Your task to perform on an android device: Open the Play Movies app and select the watchlist tab. Image 0: 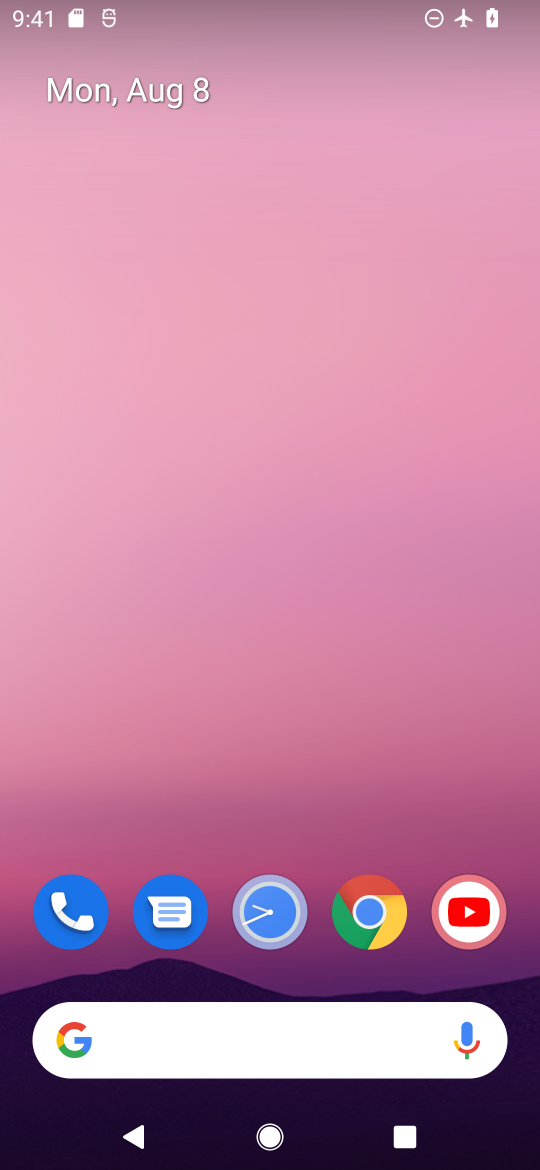
Step 0: drag from (535, 928) to (4, 221)
Your task to perform on an android device: Open the Play Movies app and select the watchlist tab. Image 1: 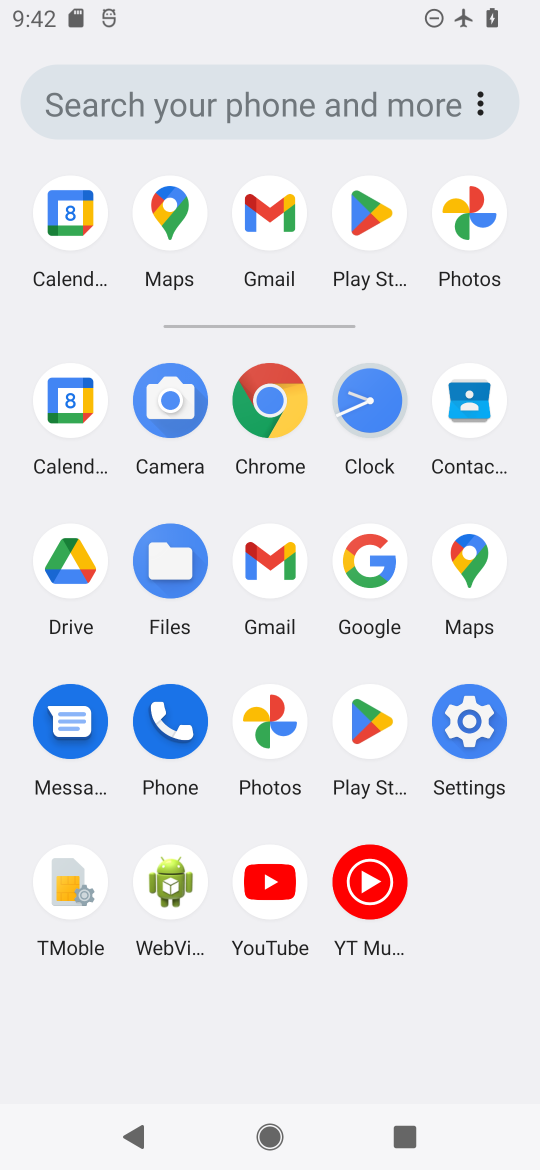
Step 1: task complete